Your task to perform on an android device: Do I have any events this weekend? Image 0: 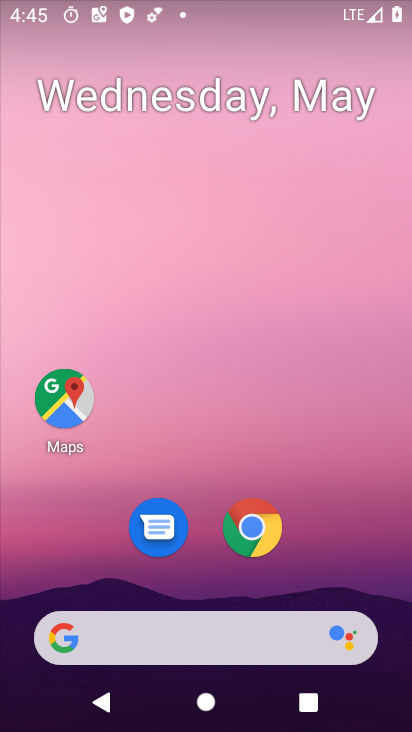
Step 0: drag from (327, 547) to (337, 82)
Your task to perform on an android device: Do I have any events this weekend? Image 1: 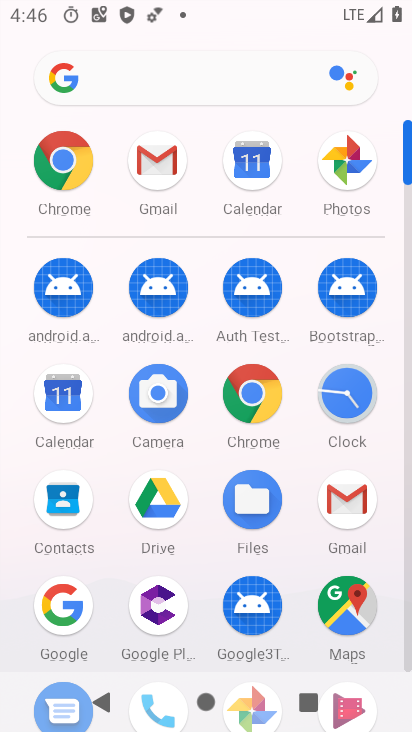
Step 1: click (56, 383)
Your task to perform on an android device: Do I have any events this weekend? Image 2: 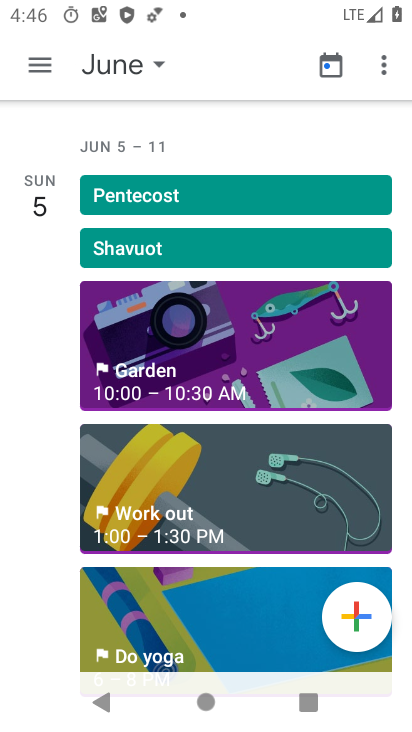
Step 2: click (34, 63)
Your task to perform on an android device: Do I have any events this weekend? Image 3: 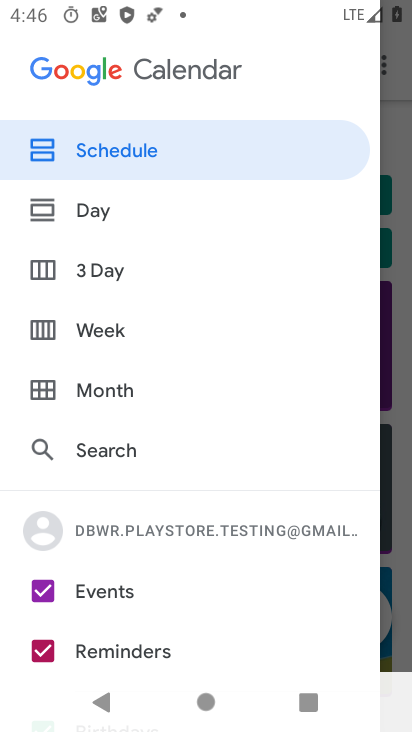
Step 3: click (142, 150)
Your task to perform on an android device: Do I have any events this weekend? Image 4: 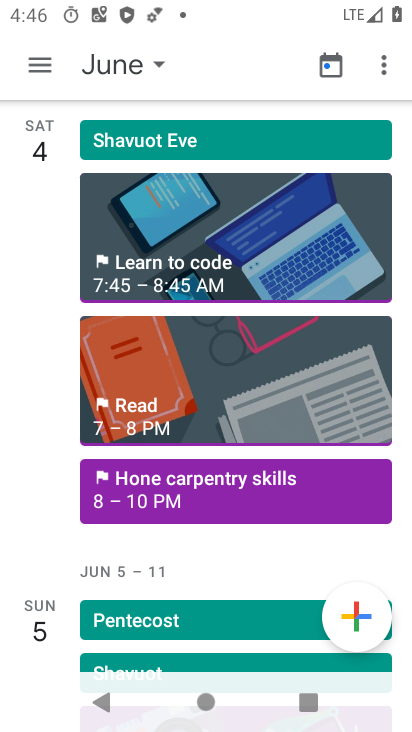
Step 4: drag from (200, 532) to (192, 593)
Your task to perform on an android device: Do I have any events this weekend? Image 5: 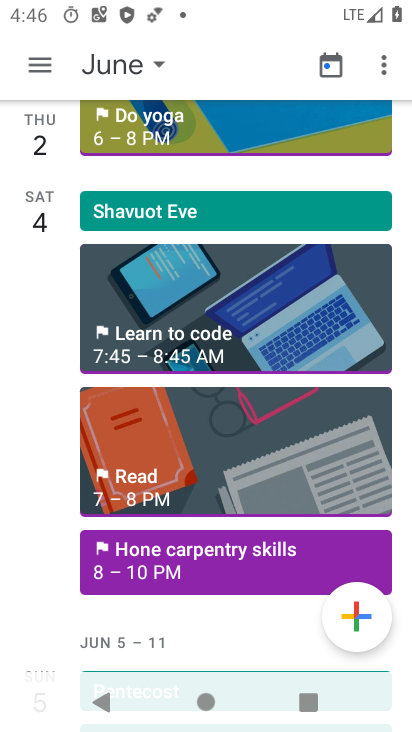
Step 5: click (127, 70)
Your task to perform on an android device: Do I have any events this weekend? Image 6: 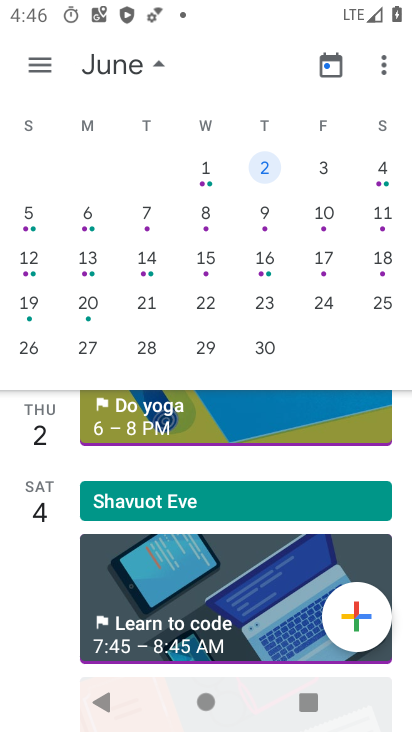
Step 6: drag from (16, 185) to (390, 202)
Your task to perform on an android device: Do I have any events this weekend? Image 7: 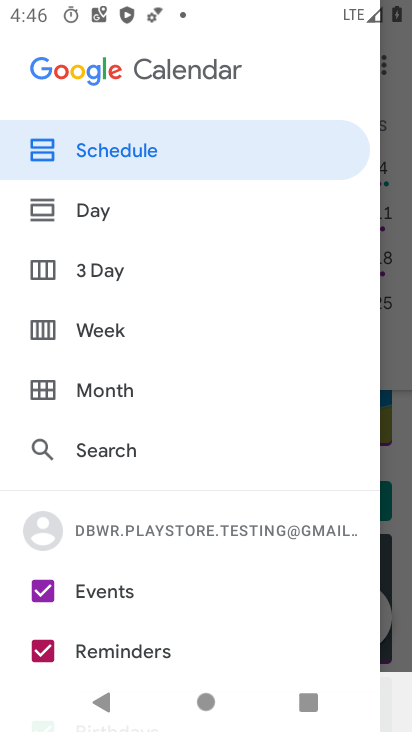
Step 7: drag from (373, 132) to (21, 153)
Your task to perform on an android device: Do I have any events this weekend? Image 8: 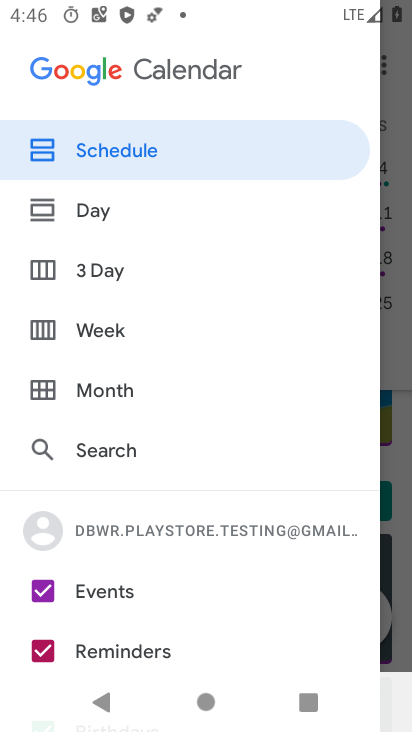
Step 8: click (403, 80)
Your task to perform on an android device: Do I have any events this weekend? Image 9: 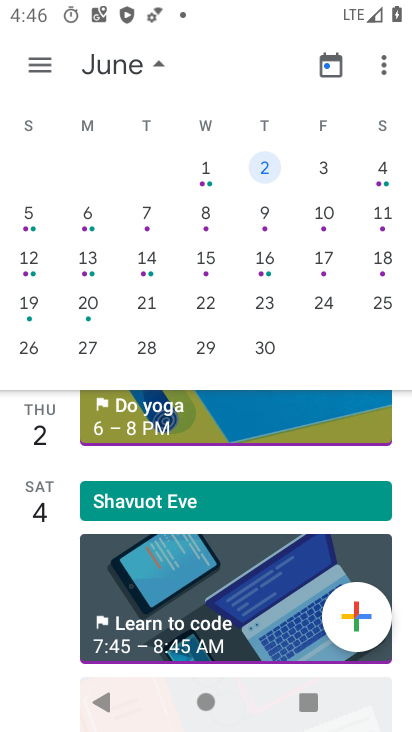
Step 9: drag from (56, 163) to (352, 159)
Your task to perform on an android device: Do I have any events this weekend? Image 10: 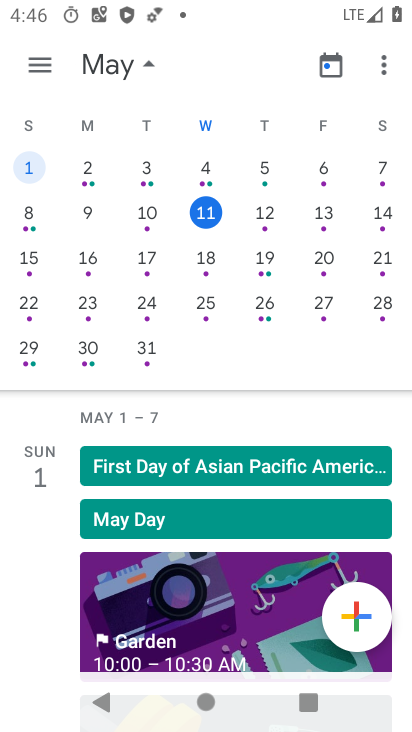
Step 10: click (215, 206)
Your task to perform on an android device: Do I have any events this weekend? Image 11: 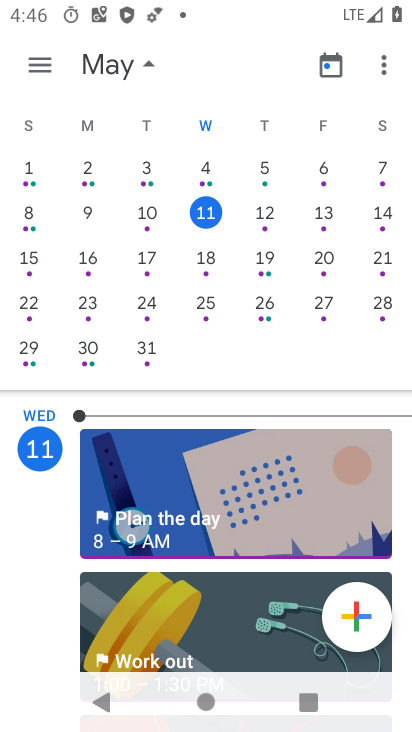
Step 11: task complete